Your task to perform on an android device: Open location settings Image 0: 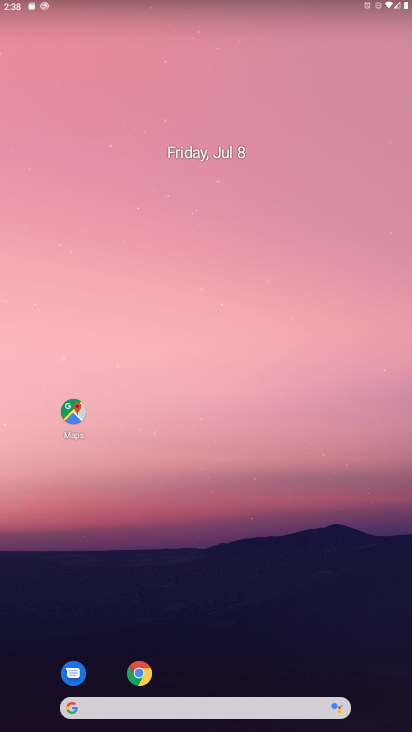
Step 0: drag from (371, 714) to (321, 184)
Your task to perform on an android device: Open location settings Image 1: 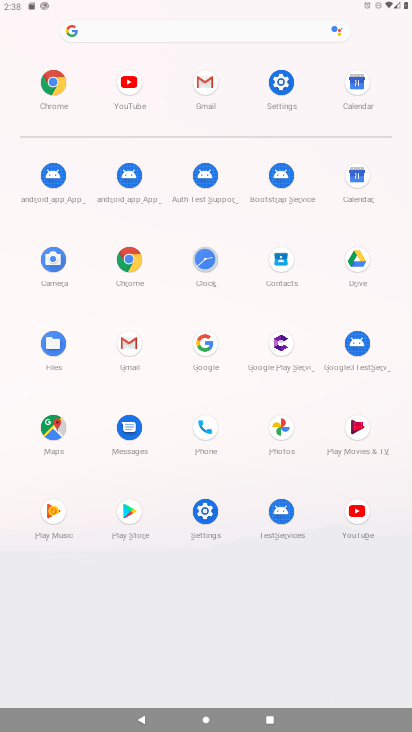
Step 1: click (274, 82)
Your task to perform on an android device: Open location settings Image 2: 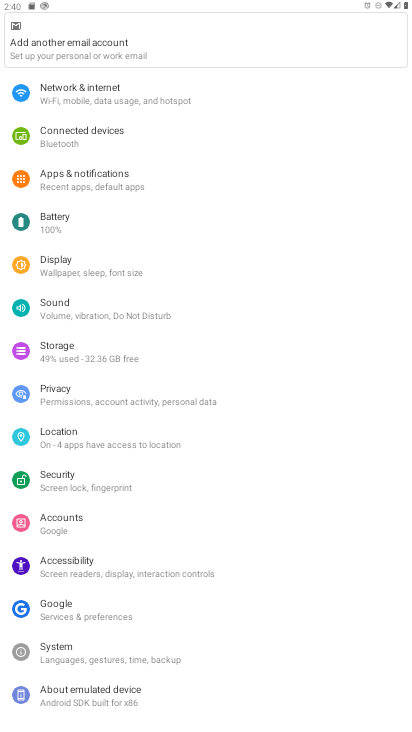
Step 2: click (45, 435)
Your task to perform on an android device: Open location settings Image 3: 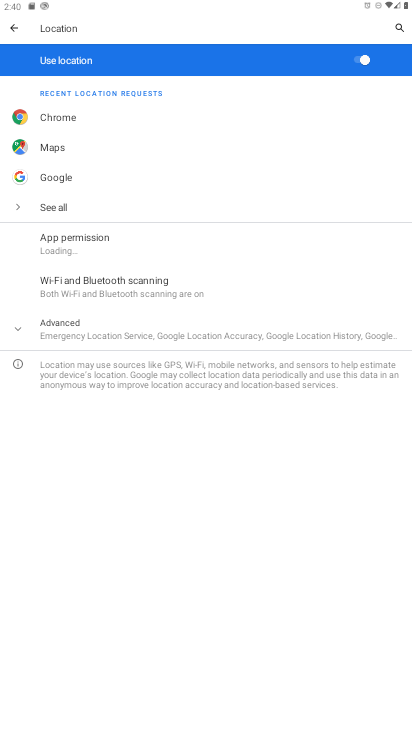
Step 3: click (17, 329)
Your task to perform on an android device: Open location settings Image 4: 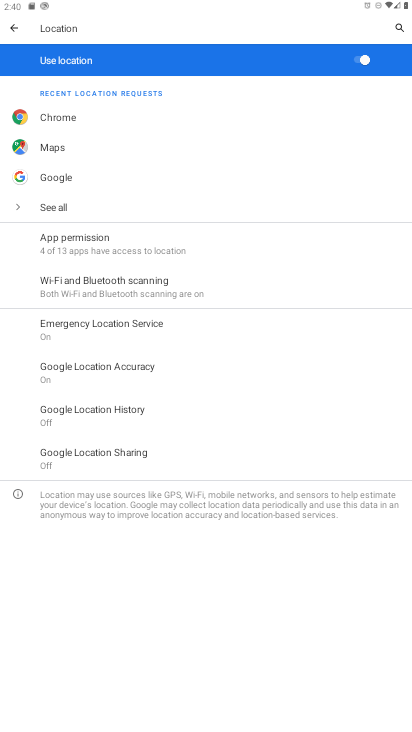
Step 4: task complete